Your task to perform on an android device: View the shopping cart on target. Add "razer huntsman" to the cart on target, then select checkout. Image 0: 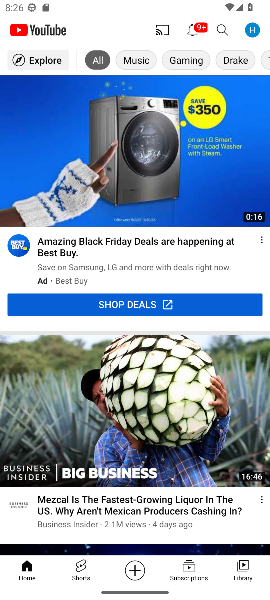
Step 0: press home button
Your task to perform on an android device: View the shopping cart on target. Add "razer huntsman" to the cart on target, then select checkout. Image 1: 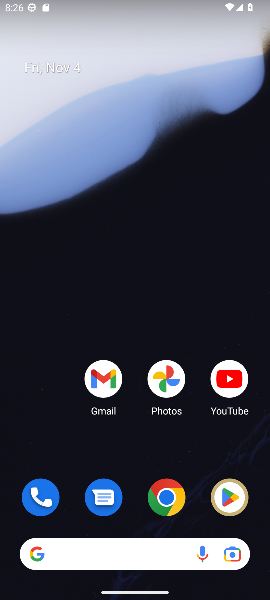
Step 1: click (162, 495)
Your task to perform on an android device: View the shopping cart on target. Add "razer huntsman" to the cart on target, then select checkout. Image 2: 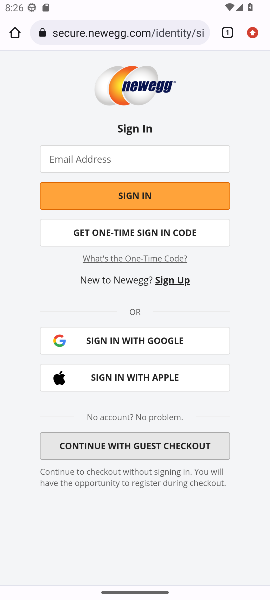
Step 2: click (95, 31)
Your task to perform on an android device: View the shopping cart on target. Add "razer huntsman" to the cart on target, then select checkout. Image 3: 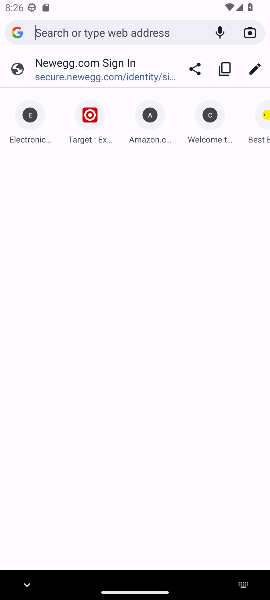
Step 3: click (93, 123)
Your task to perform on an android device: View the shopping cart on target. Add "razer huntsman" to the cart on target, then select checkout. Image 4: 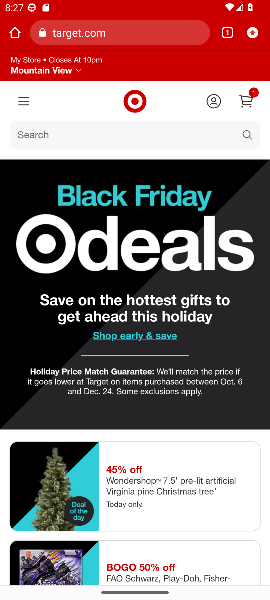
Step 4: click (235, 138)
Your task to perform on an android device: View the shopping cart on target. Add "razer huntsman" to the cart on target, then select checkout. Image 5: 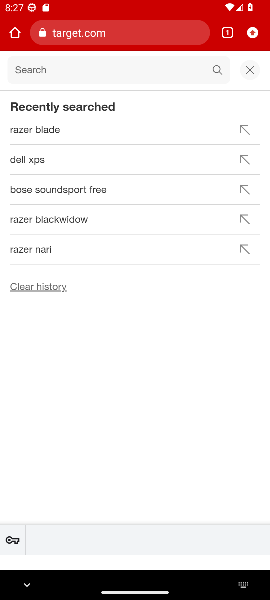
Step 5: click (50, 77)
Your task to perform on an android device: View the shopping cart on target. Add "razer huntsman" to the cart on target, then select checkout. Image 6: 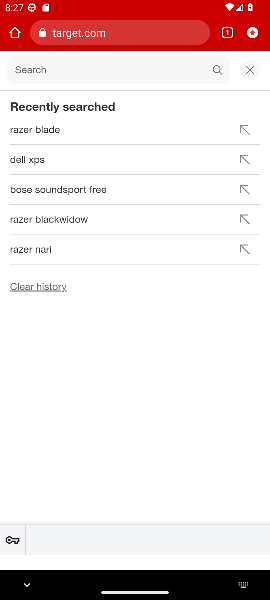
Step 6: type "razer huntsman"
Your task to perform on an android device: View the shopping cart on target. Add "razer huntsman" to the cart on target, then select checkout. Image 7: 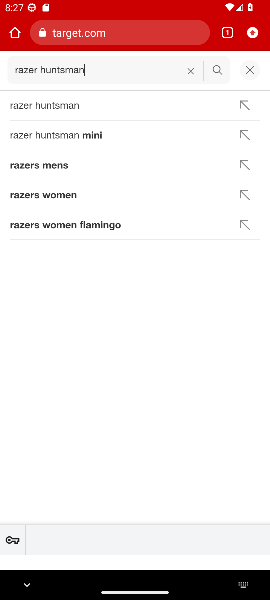
Step 7: click (35, 111)
Your task to perform on an android device: View the shopping cart on target. Add "razer huntsman" to the cart on target, then select checkout. Image 8: 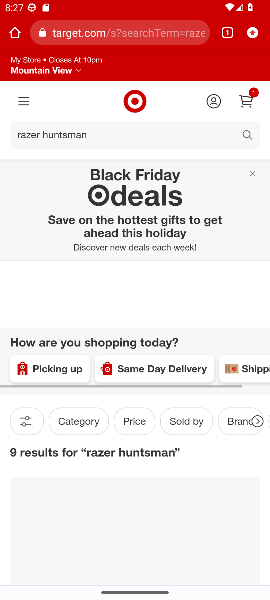
Step 8: drag from (107, 512) to (107, 320)
Your task to perform on an android device: View the shopping cart on target. Add "razer huntsman" to the cart on target, then select checkout. Image 9: 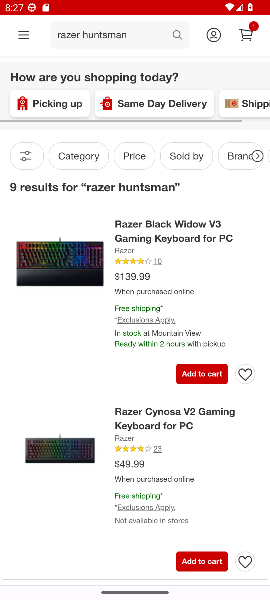
Step 9: drag from (100, 343) to (96, 164)
Your task to perform on an android device: View the shopping cart on target. Add "razer huntsman" to the cart on target, then select checkout. Image 10: 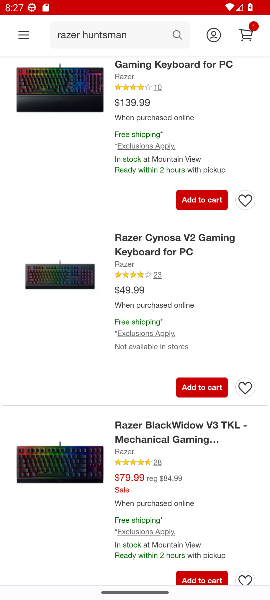
Step 10: drag from (110, 482) to (104, 266)
Your task to perform on an android device: View the shopping cart on target. Add "razer huntsman" to the cart on target, then select checkout. Image 11: 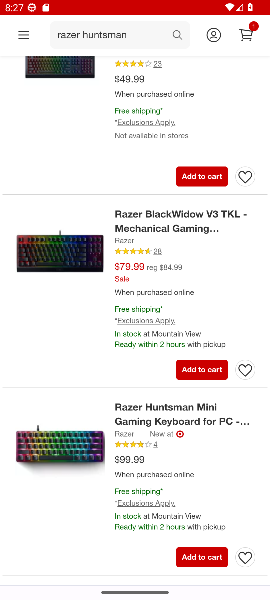
Step 11: click (88, 434)
Your task to perform on an android device: View the shopping cart on target. Add "razer huntsman" to the cart on target, then select checkout. Image 12: 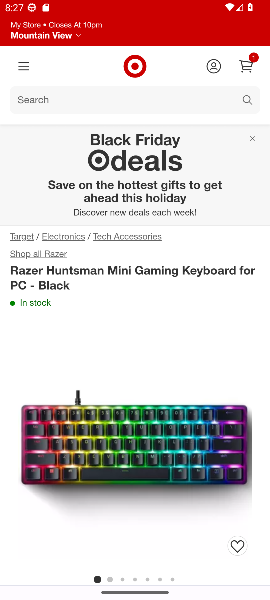
Step 12: drag from (99, 476) to (104, 179)
Your task to perform on an android device: View the shopping cart on target. Add "razer huntsman" to the cart on target, then select checkout. Image 13: 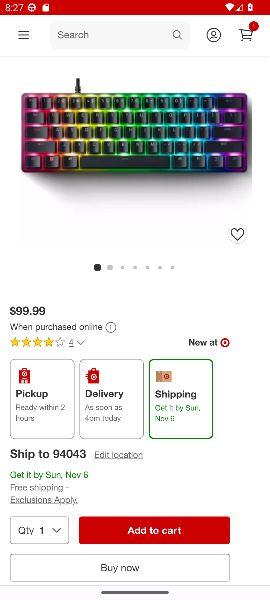
Step 13: click (149, 534)
Your task to perform on an android device: View the shopping cart on target. Add "razer huntsman" to the cart on target, then select checkout. Image 14: 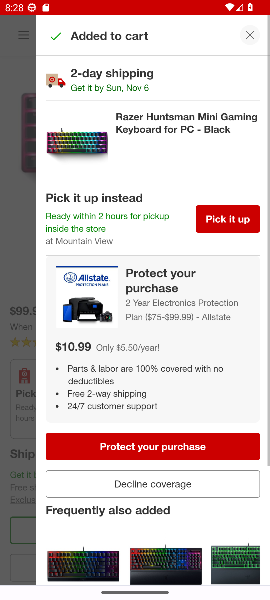
Step 14: click (250, 35)
Your task to perform on an android device: View the shopping cart on target. Add "razer huntsman" to the cart on target, then select checkout. Image 15: 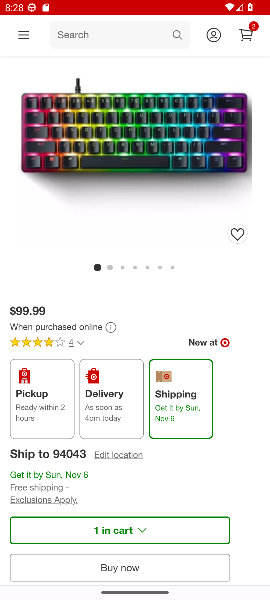
Step 15: click (240, 33)
Your task to perform on an android device: View the shopping cart on target. Add "razer huntsman" to the cart on target, then select checkout. Image 16: 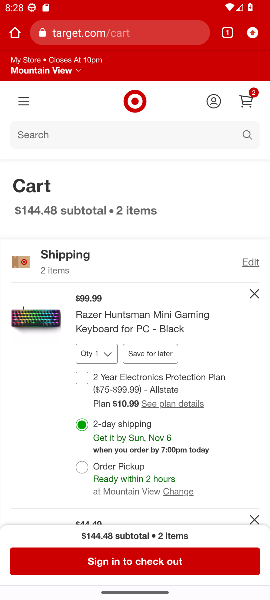
Step 16: click (118, 569)
Your task to perform on an android device: View the shopping cart on target. Add "razer huntsman" to the cart on target, then select checkout. Image 17: 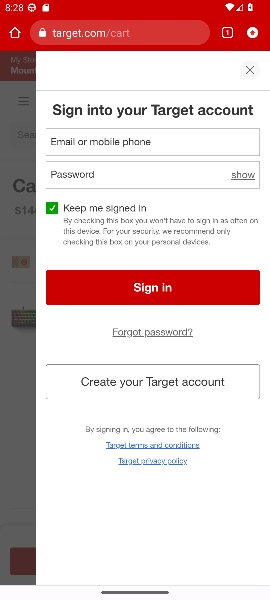
Step 17: task complete